Your task to perform on an android device: Open Yahoo.com Image 0: 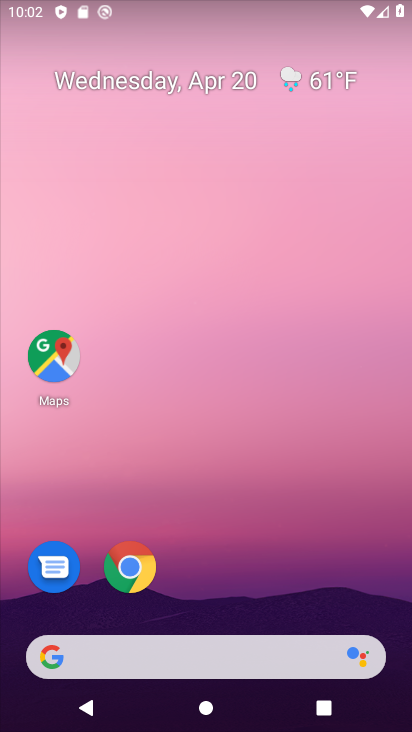
Step 0: click (173, 660)
Your task to perform on an android device: Open Yahoo.com Image 1: 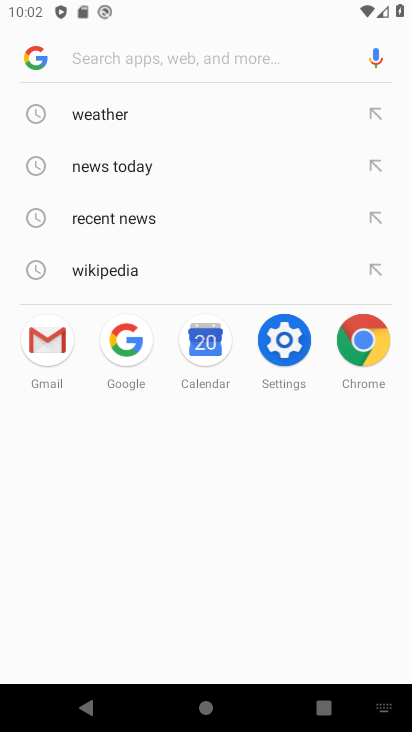
Step 1: type "Yahoo.com"
Your task to perform on an android device: Open Yahoo.com Image 2: 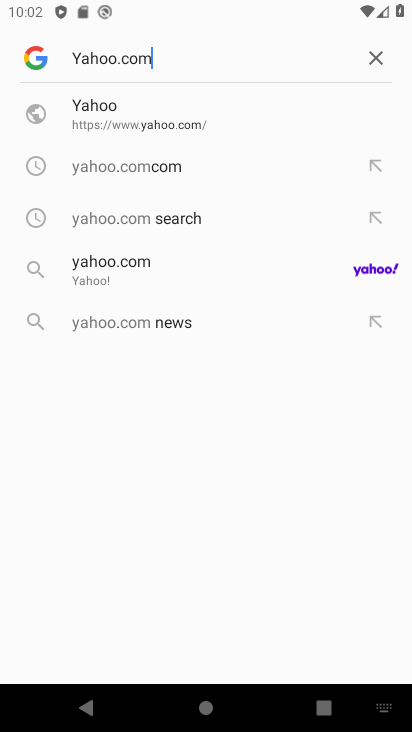
Step 2: click (125, 123)
Your task to perform on an android device: Open Yahoo.com Image 3: 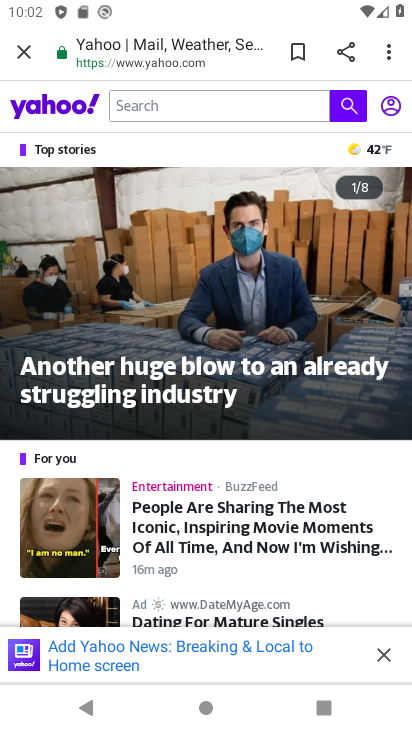
Step 3: task complete